Your task to perform on an android device: Turn on the flashlight Image 0: 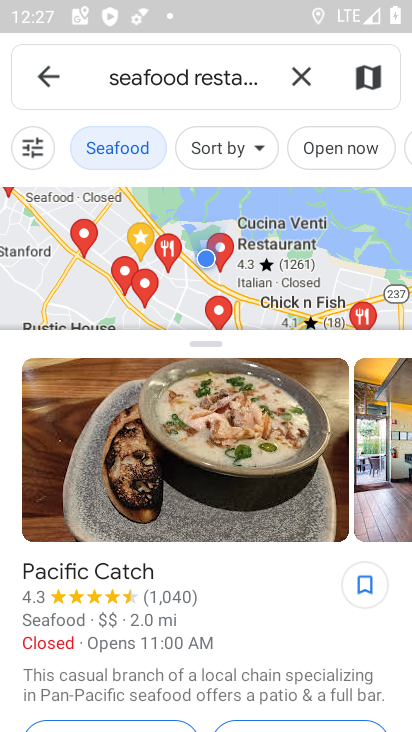
Step 0: press home button
Your task to perform on an android device: Turn on the flashlight Image 1: 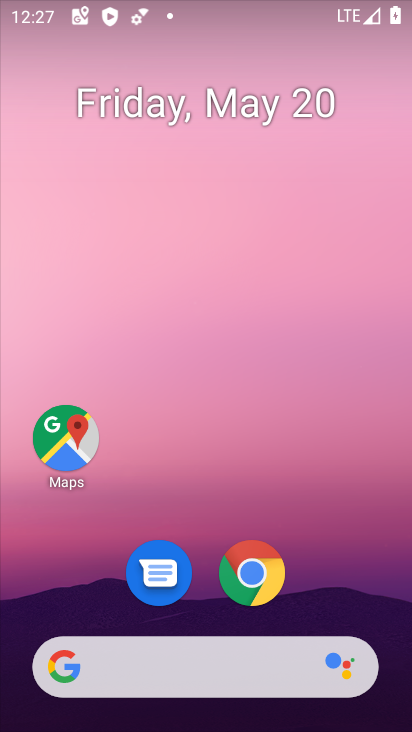
Step 1: drag from (222, 588) to (281, 38)
Your task to perform on an android device: Turn on the flashlight Image 2: 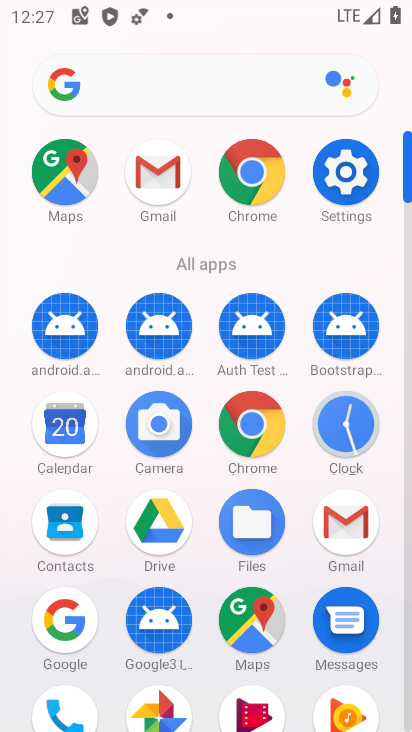
Step 2: click (356, 180)
Your task to perform on an android device: Turn on the flashlight Image 3: 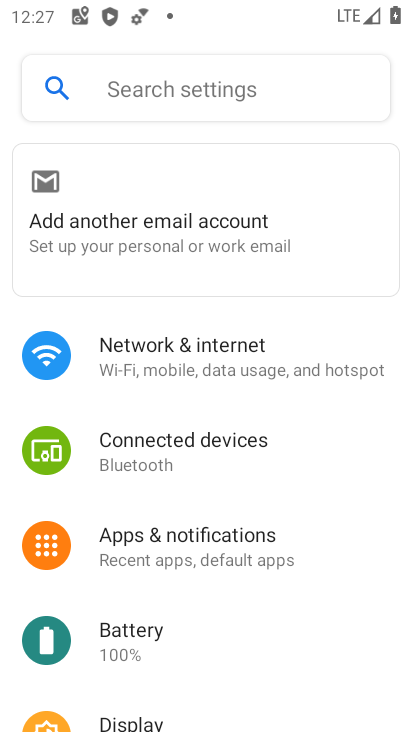
Step 3: click (236, 89)
Your task to perform on an android device: Turn on the flashlight Image 4: 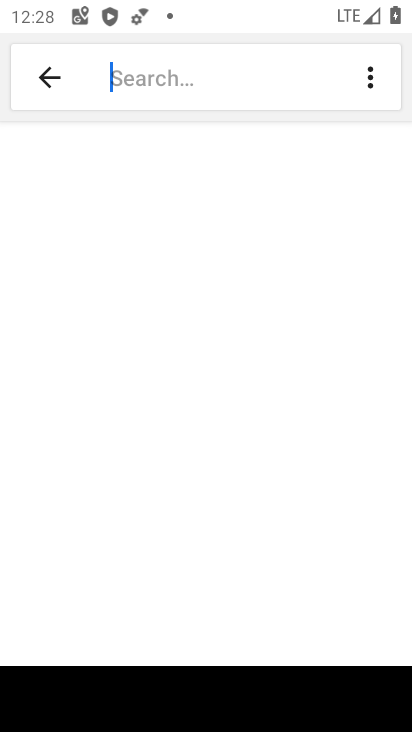
Step 4: type "flashlight"
Your task to perform on an android device: Turn on the flashlight Image 5: 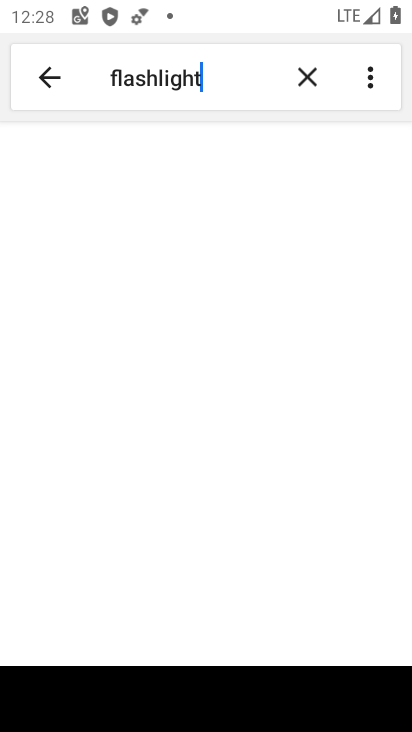
Step 5: click (155, 167)
Your task to perform on an android device: Turn on the flashlight Image 6: 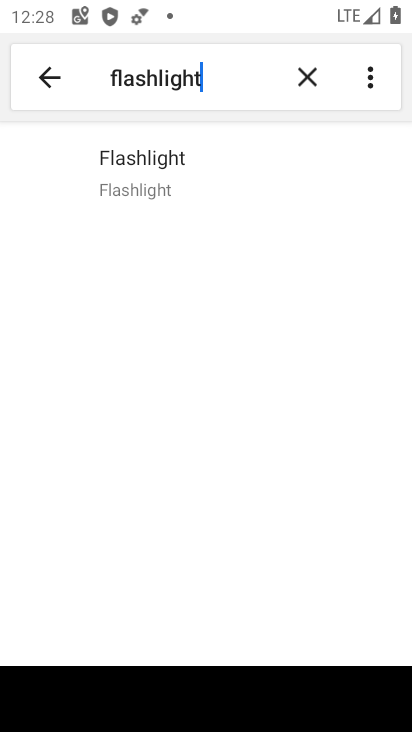
Step 6: click (165, 172)
Your task to perform on an android device: Turn on the flashlight Image 7: 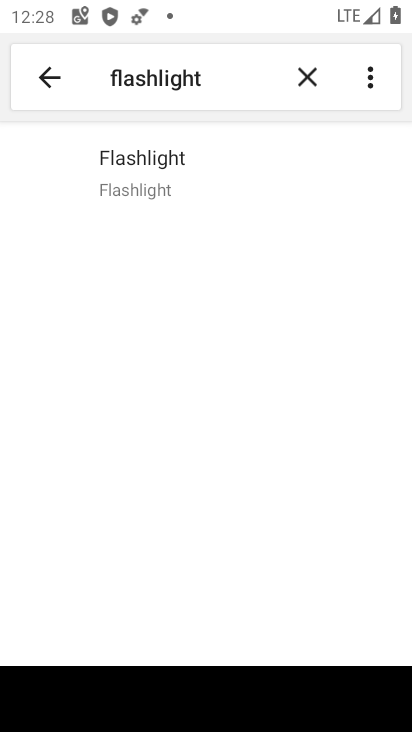
Step 7: click (165, 172)
Your task to perform on an android device: Turn on the flashlight Image 8: 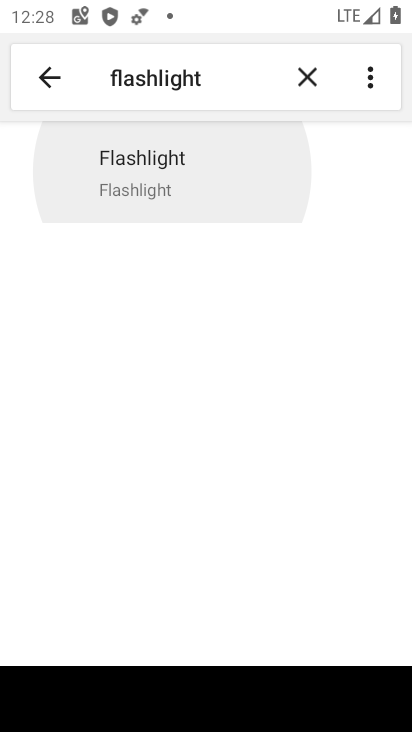
Step 8: click (165, 172)
Your task to perform on an android device: Turn on the flashlight Image 9: 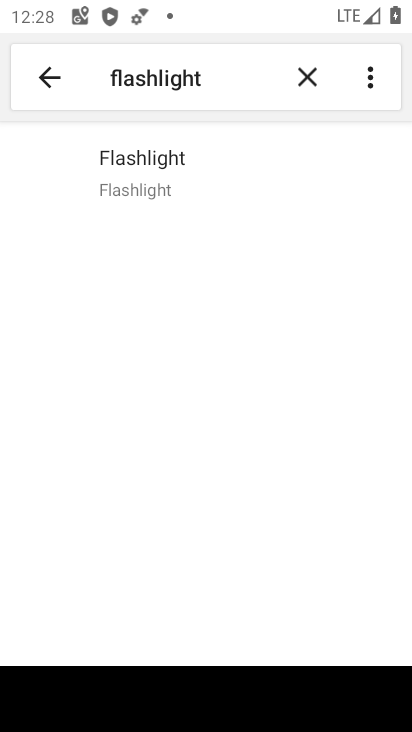
Step 9: task complete